Your task to perform on an android device: star an email in the gmail app Image 0: 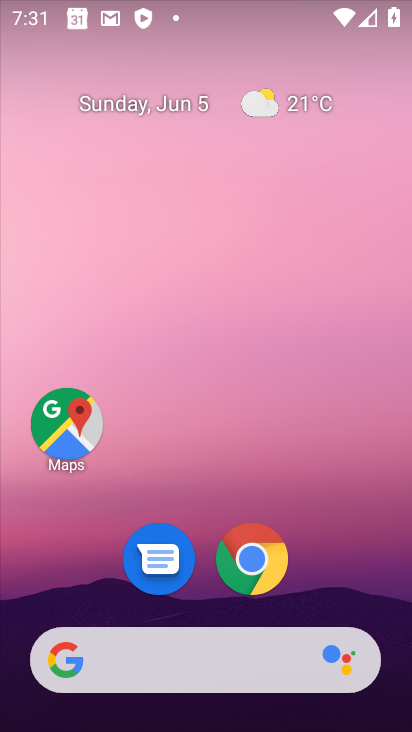
Step 0: drag from (193, 623) to (70, 33)
Your task to perform on an android device: star an email in the gmail app Image 1: 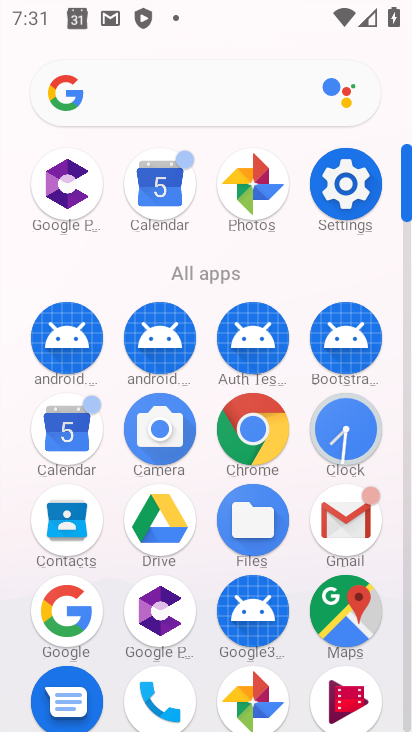
Step 1: click (359, 518)
Your task to perform on an android device: star an email in the gmail app Image 2: 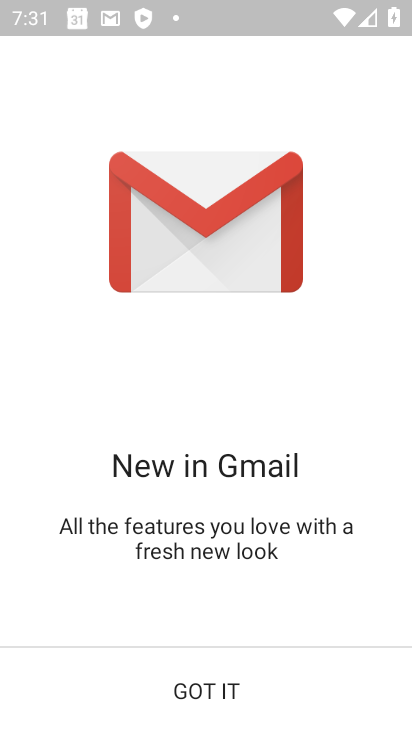
Step 2: click (214, 673)
Your task to perform on an android device: star an email in the gmail app Image 3: 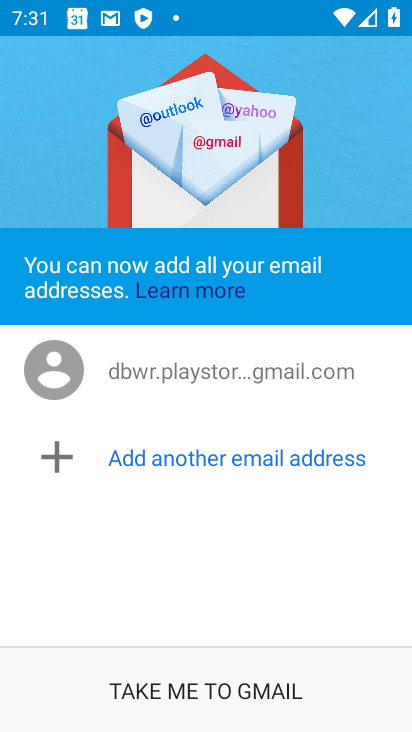
Step 3: click (213, 672)
Your task to perform on an android device: star an email in the gmail app Image 4: 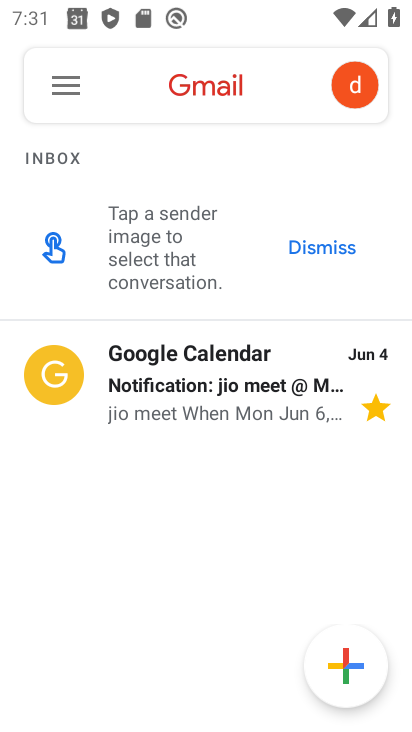
Step 4: click (60, 87)
Your task to perform on an android device: star an email in the gmail app Image 5: 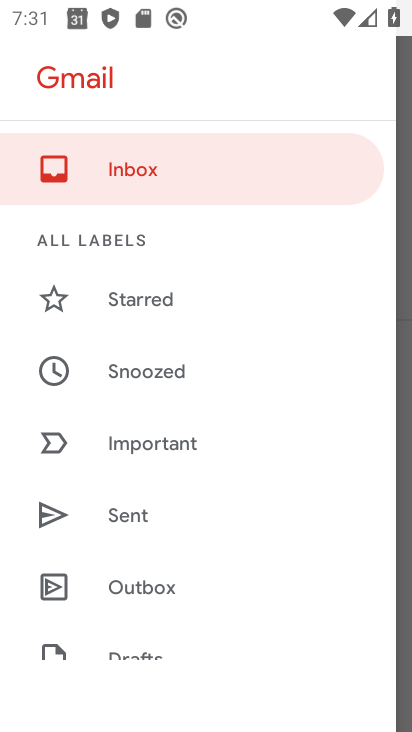
Step 5: click (403, 152)
Your task to perform on an android device: star an email in the gmail app Image 6: 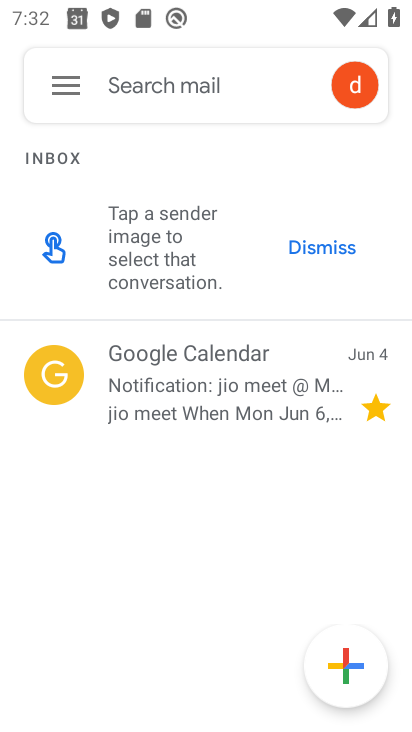
Step 6: task complete